Your task to perform on an android device: toggle translation in the chrome app Image 0: 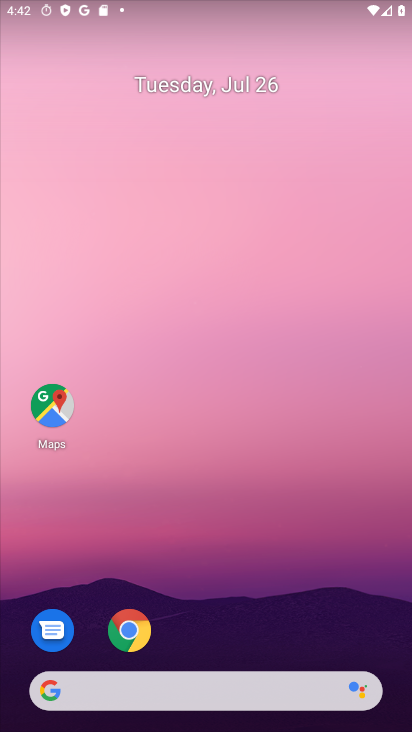
Step 0: drag from (298, 574) to (305, 41)
Your task to perform on an android device: toggle translation in the chrome app Image 1: 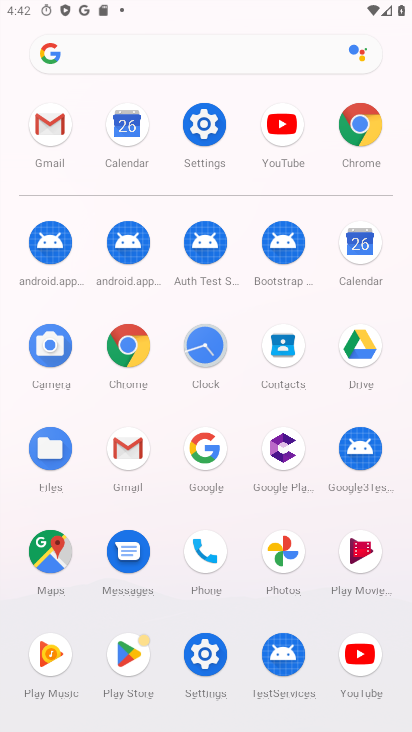
Step 1: click (358, 123)
Your task to perform on an android device: toggle translation in the chrome app Image 2: 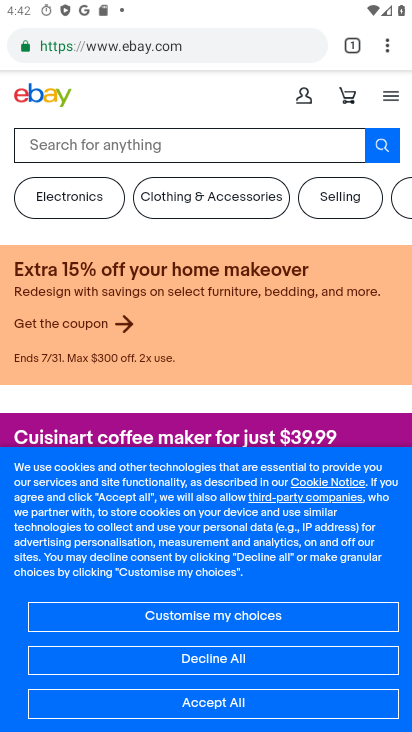
Step 2: drag from (388, 43) to (246, 558)
Your task to perform on an android device: toggle translation in the chrome app Image 3: 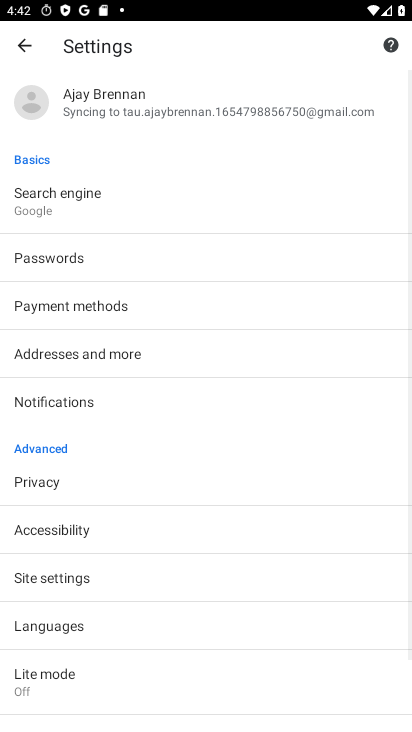
Step 3: drag from (177, 645) to (213, 299)
Your task to perform on an android device: toggle translation in the chrome app Image 4: 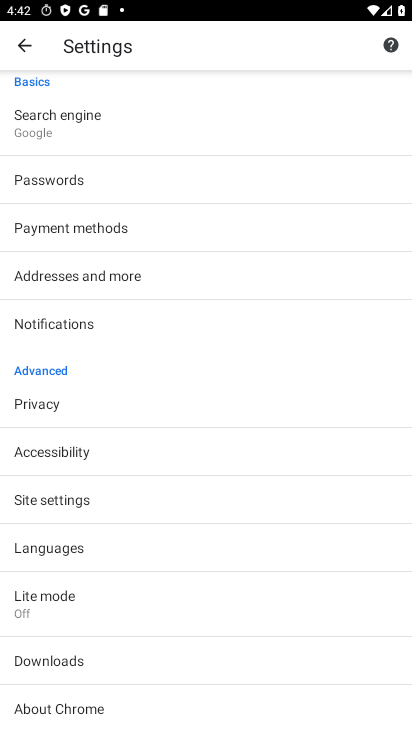
Step 4: click (50, 556)
Your task to perform on an android device: toggle translation in the chrome app Image 5: 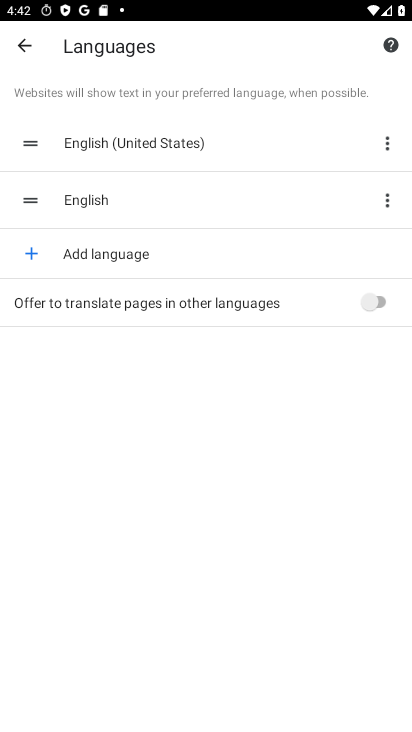
Step 5: click (375, 312)
Your task to perform on an android device: toggle translation in the chrome app Image 6: 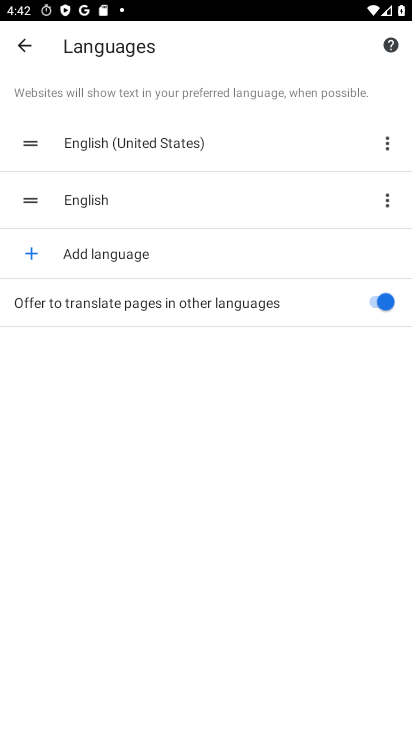
Step 6: task complete